Your task to perform on an android device: turn notification dots on Image 0: 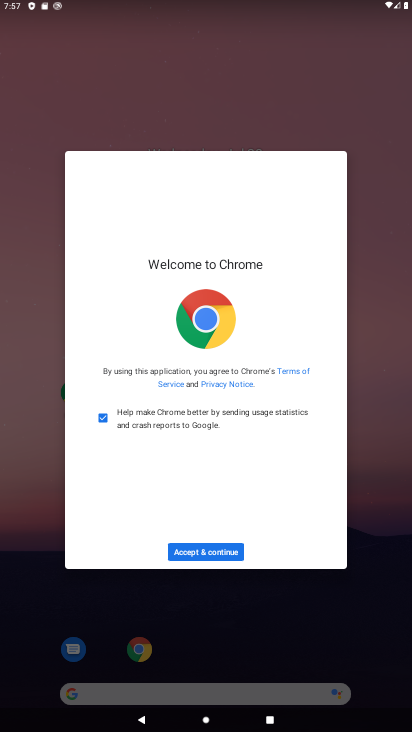
Step 0: press home button
Your task to perform on an android device: turn notification dots on Image 1: 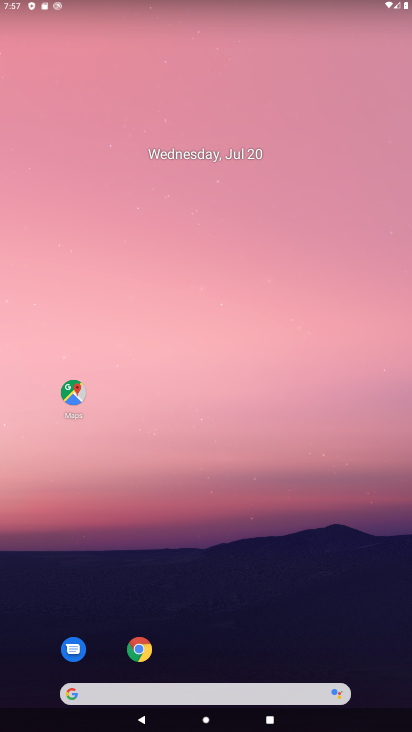
Step 1: drag from (232, 670) to (109, 76)
Your task to perform on an android device: turn notification dots on Image 2: 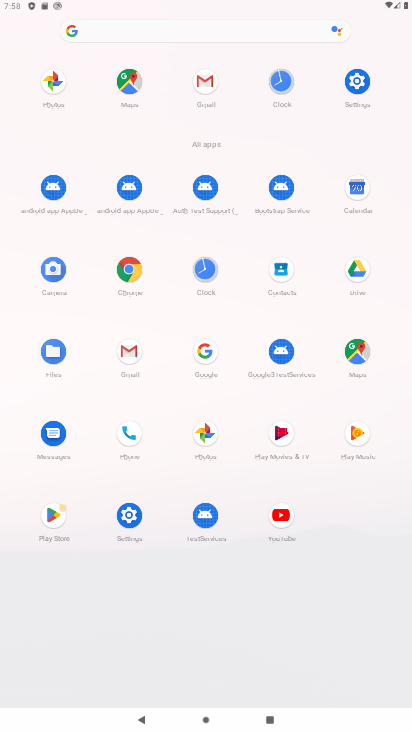
Step 2: click (123, 520)
Your task to perform on an android device: turn notification dots on Image 3: 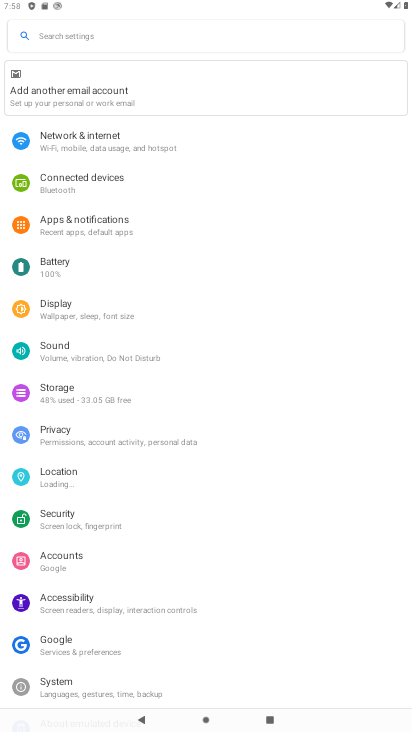
Step 3: click (73, 227)
Your task to perform on an android device: turn notification dots on Image 4: 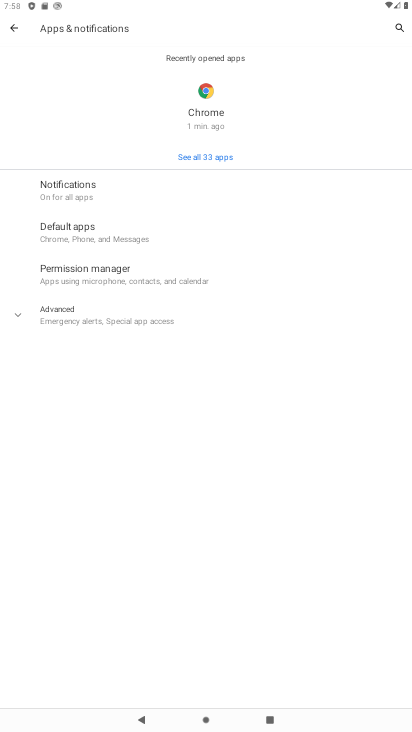
Step 4: click (79, 191)
Your task to perform on an android device: turn notification dots on Image 5: 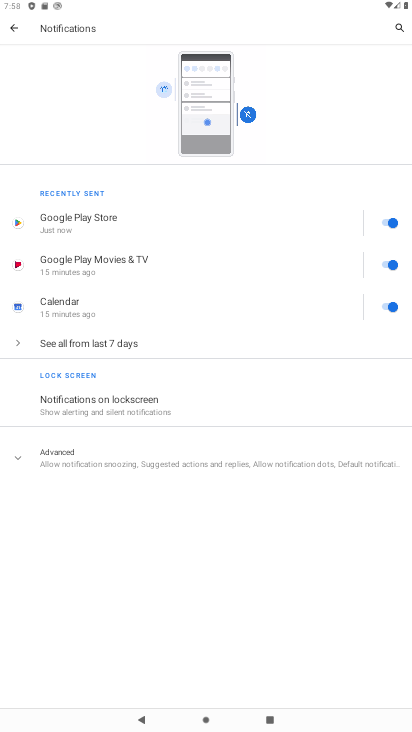
Step 5: click (114, 464)
Your task to perform on an android device: turn notification dots on Image 6: 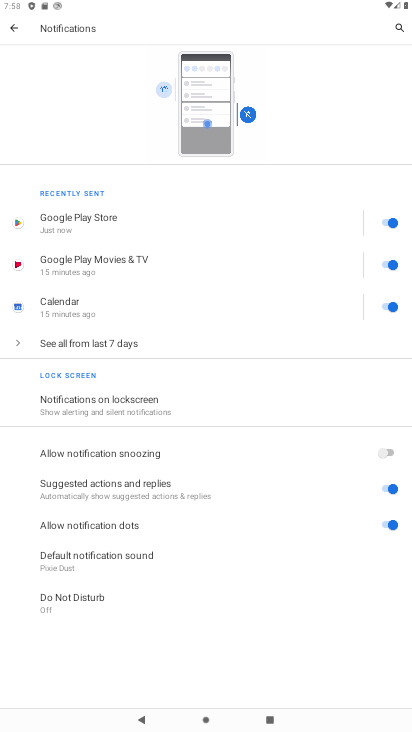
Step 6: click (114, 464)
Your task to perform on an android device: turn notification dots on Image 7: 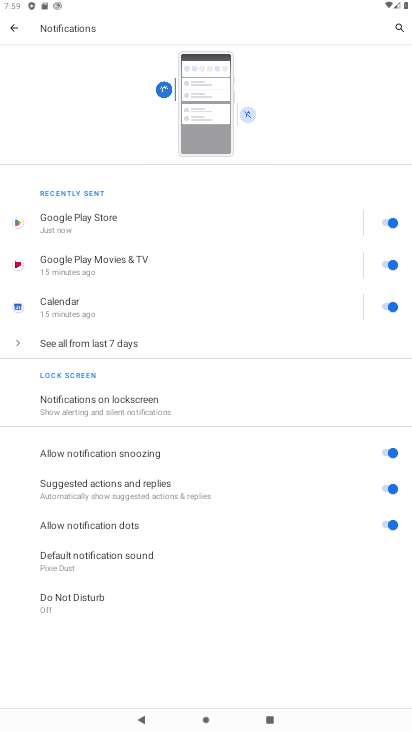
Step 7: task complete